Your task to perform on an android device: Open accessibility settings Image 0: 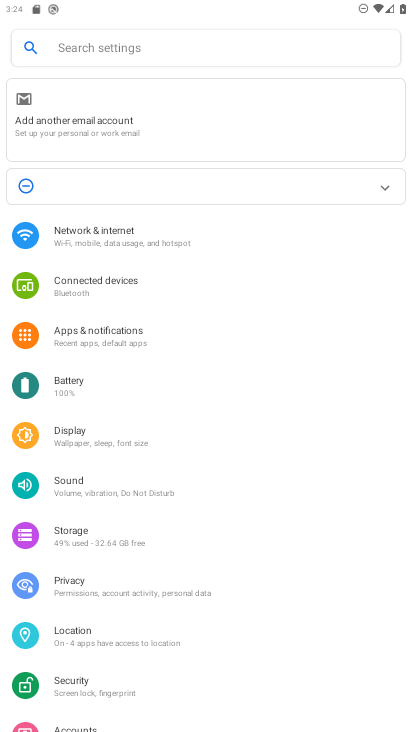
Step 0: drag from (241, 532) to (265, 20)
Your task to perform on an android device: Open accessibility settings Image 1: 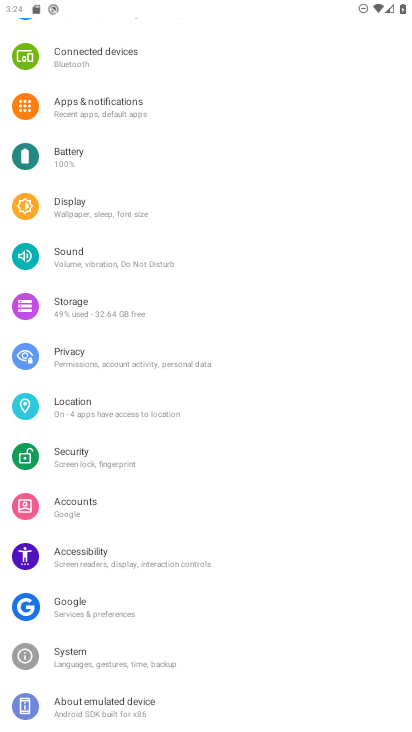
Step 1: drag from (260, 505) to (268, 173)
Your task to perform on an android device: Open accessibility settings Image 2: 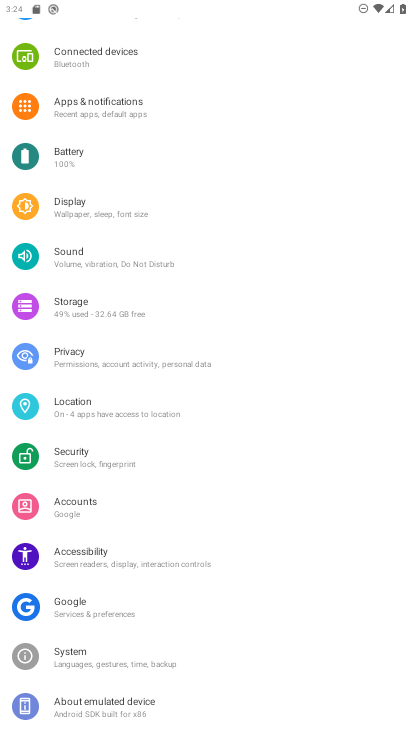
Step 2: click (151, 566)
Your task to perform on an android device: Open accessibility settings Image 3: 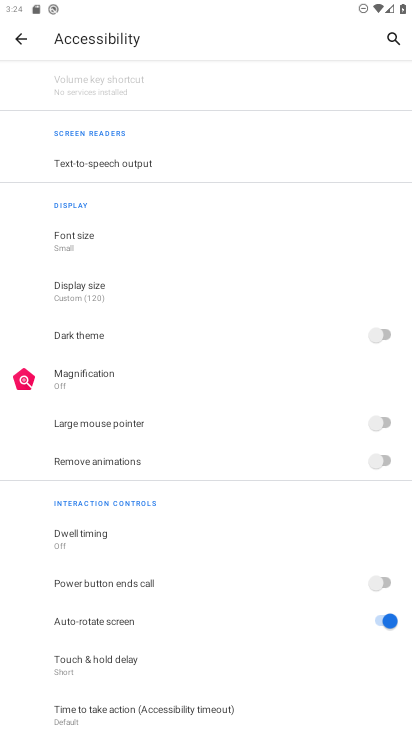
Step 3: task complete